Your task to perform on an android device: turn smart compose on in the gmail app Image 0: 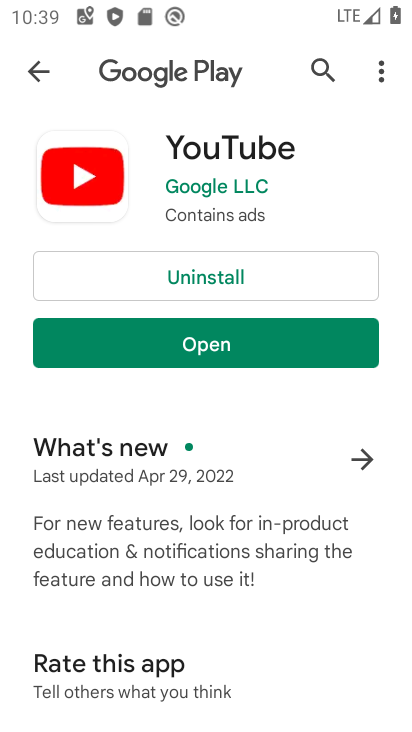
Step 0: press home button
Your task to perform on an android device: turn smart compose on in the gmail app Image 1: 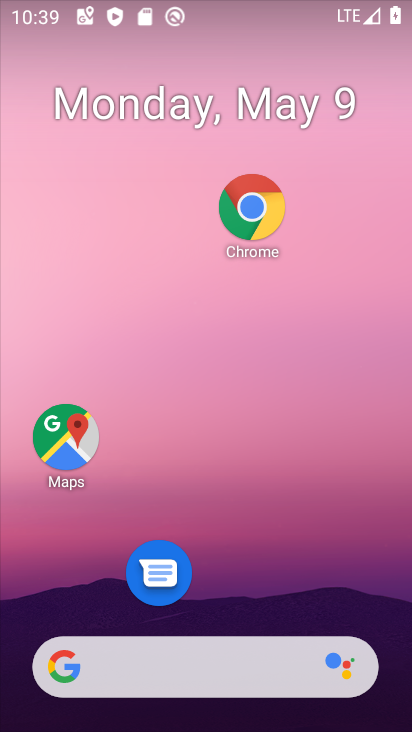
Step 1: drag from (279, 649) to (286, 118)
Your task to perform on an android device: turn smart compose on in the gmail app Image 2: 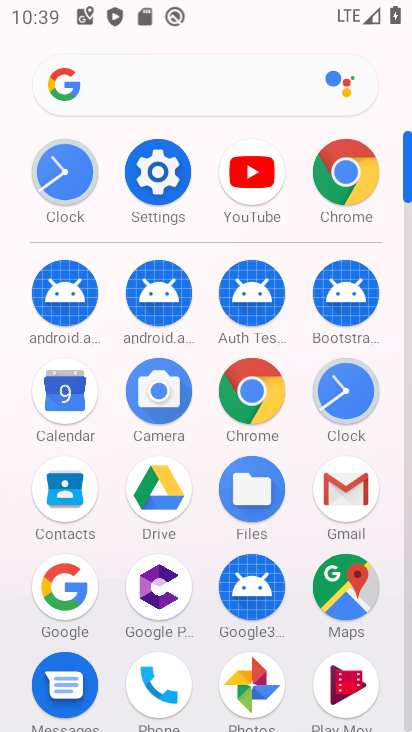
Step 2: click (348, 507)
Your task to perform on an android device: turn smart compose on in the gmail app Image 3: 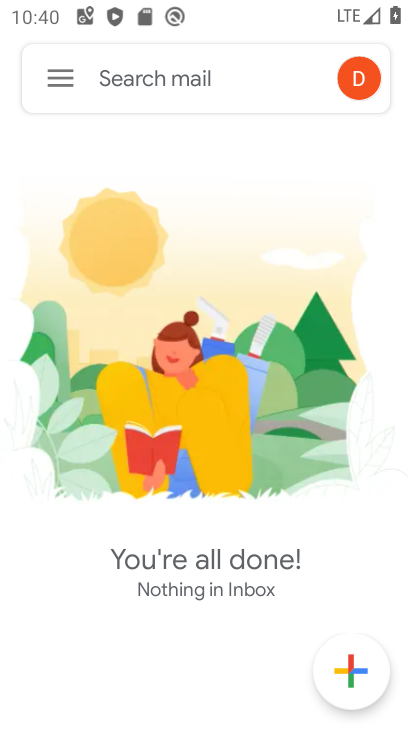
Step 3: click (52, 77)
Your task to perform on an android device: turn smart compose on in the gmail app Image 4: 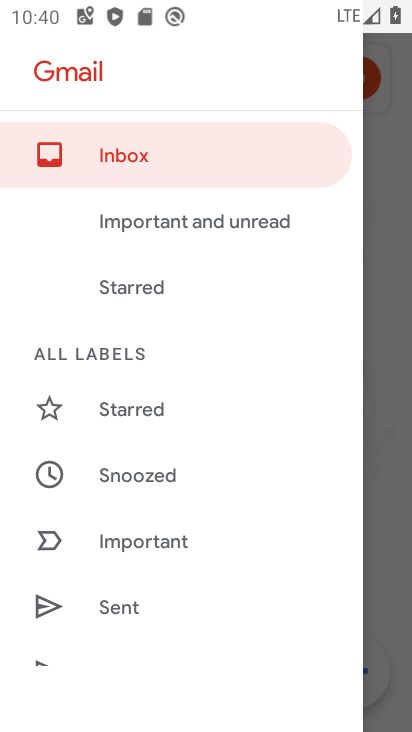
Step 4: drag from (201, 515) to (280, 156)
Your task to perform on an android device: turn smart compose on in the gmail app Image 5: 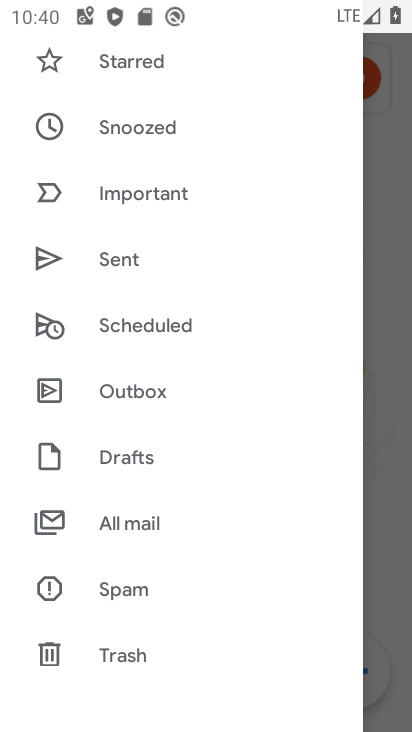
Step 5: drag from (153, 630) to (190, 326)
Your task to perform on an android device: turn smart compose on in the gmail app Image 6: 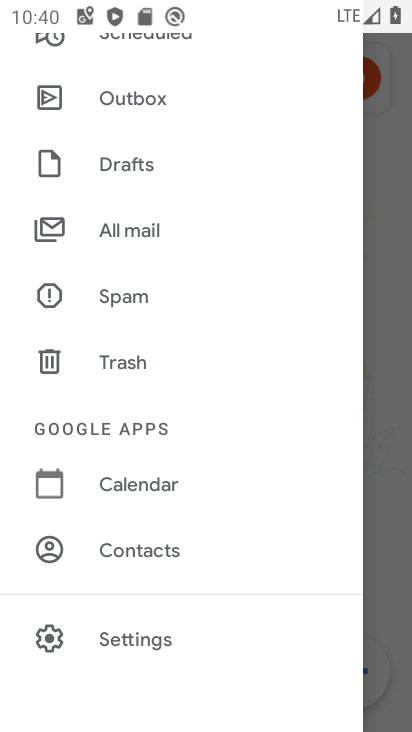
Step 6: click (128, 640)
Your task to perform on an android device: turn smart compose on in the gmail app Image 7: 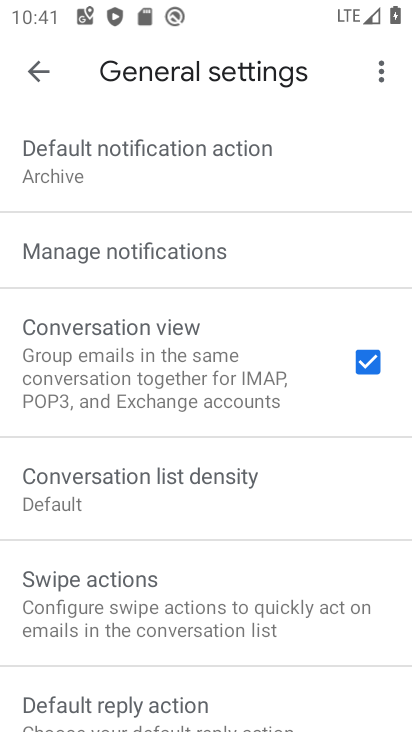
Step 7: drag from (134, 553) to (120, 336)
Your task to perform on an android device: turn smart compose on in the gmail app Image 8: 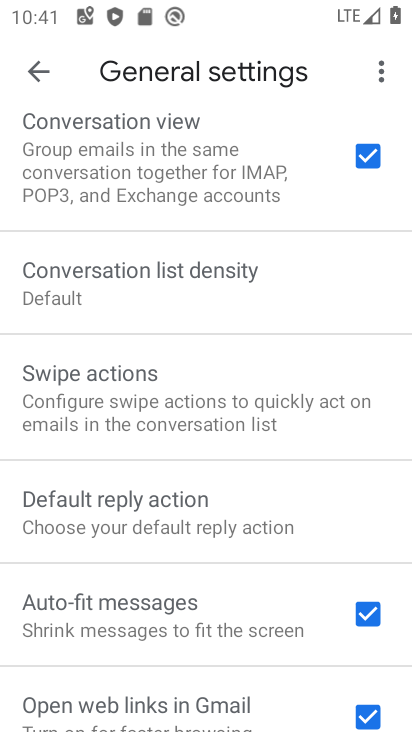
Step 8: drag from (194, 481) to (201, 336)
Your task to perform on an android device: turn smart compose on in the gmail app Image 9: 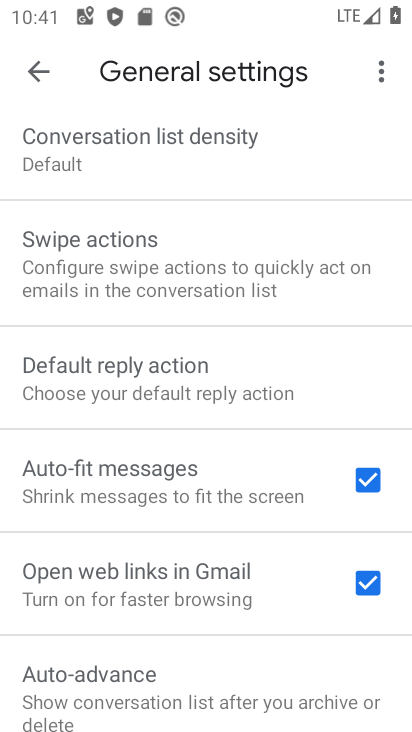
Step 9: drag from (192, 454) to (225, 273)
Your task to perform on an android device: turn smart compose on in the gmail app Image 10: 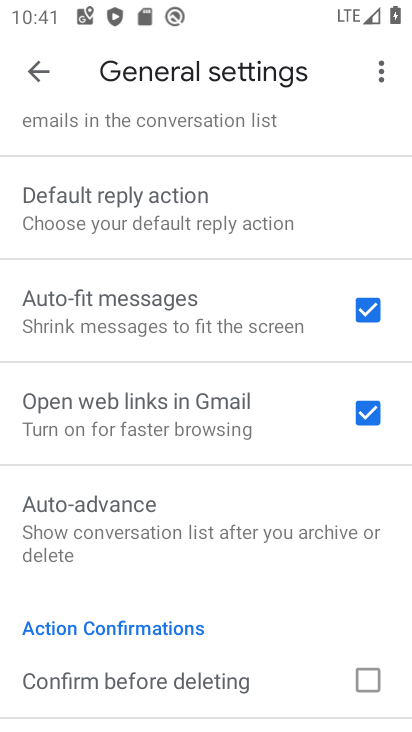
Step 10: click (35, 78)
Your task to perform on an android device: turn smart compose on in the gmail app Image 11: 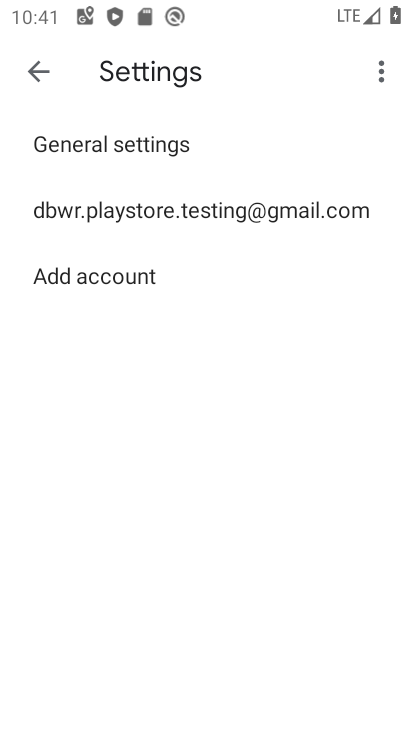
Step 11: click (264, 212)
Your task to perform on an android device: turn smart compose on in the gmail app Image 12: 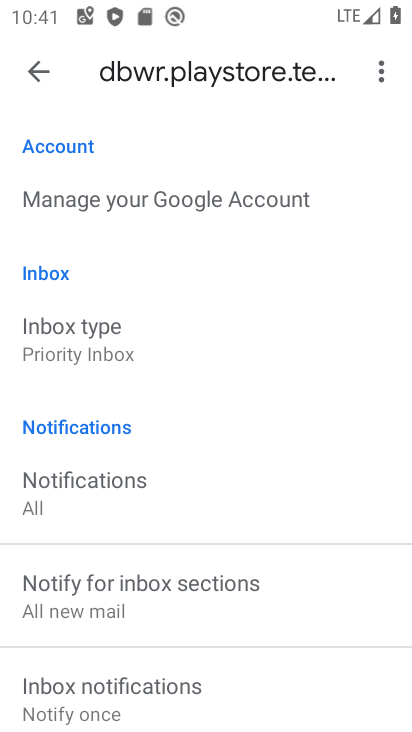
Step 12: task complete